Your task to perform on an android device: set the timer Image 0: 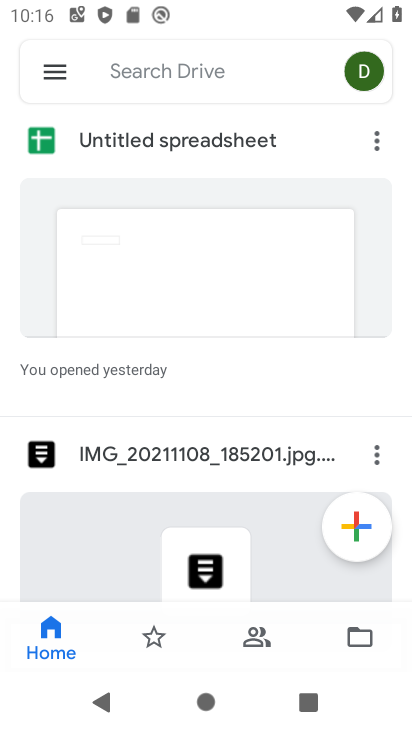
Step 0: press home button
Your task to perform on an android device: set the timer Image 1: 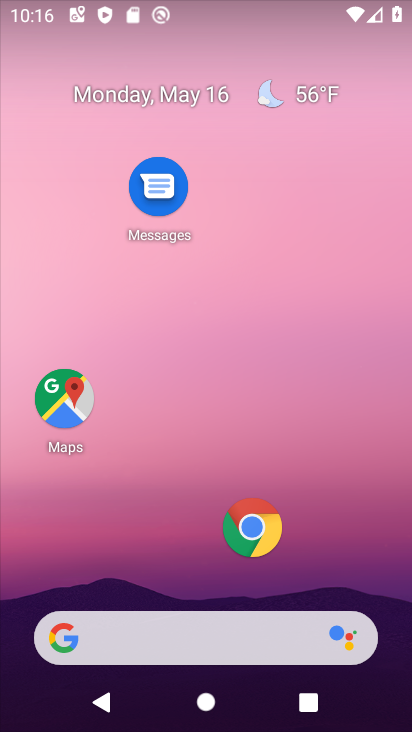
Step 1: drag from (206, 574) to (225, 53)
Your task to perform on an android device: set the timer Image 2: 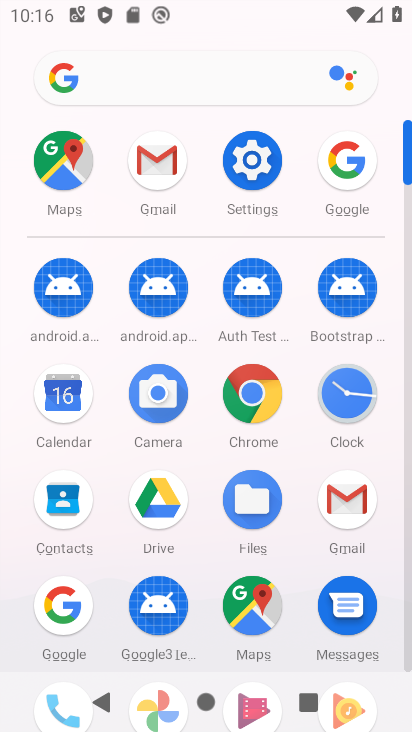
Step 2: click (347, 395)
Your task to perform on an android device: set the timer Image 3: 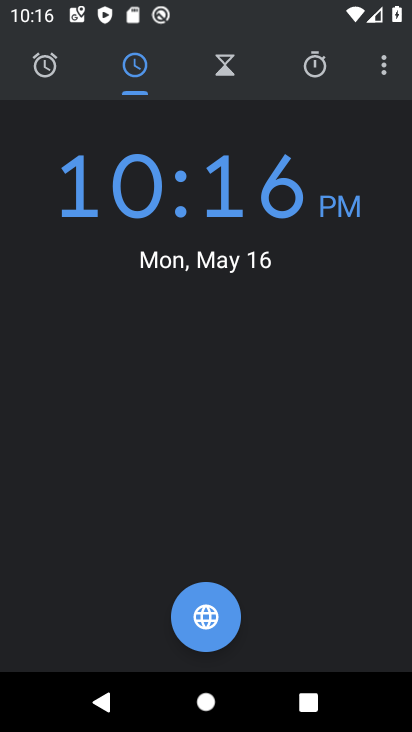
Step 3: click (220, 64)
Your task to perform on an android device: set the timer Image 4: 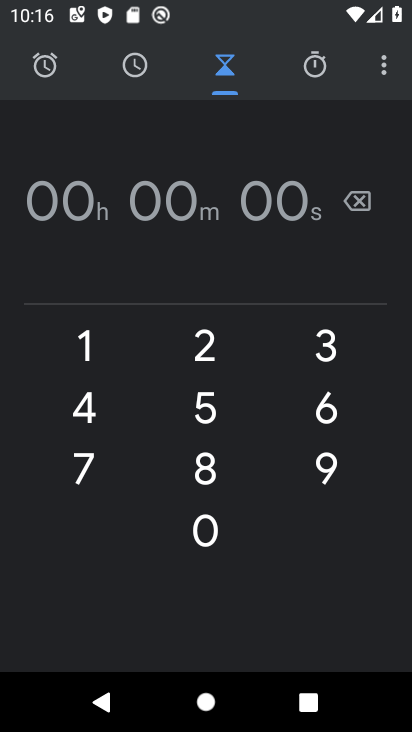
Step 4: click (214, 344)
Your task to perform on an android device: set the timer Image 5: 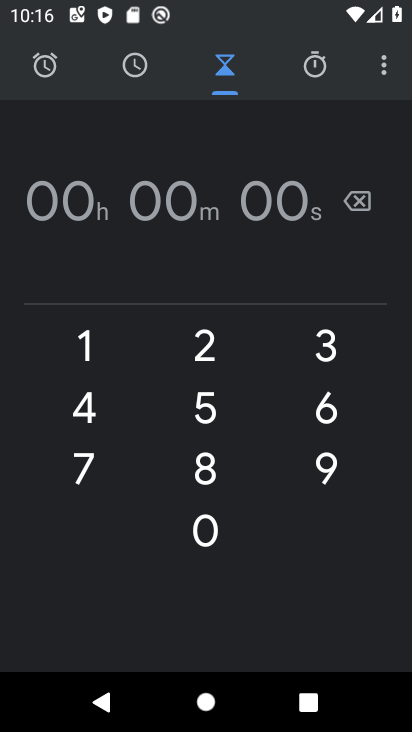
Step 5: click (214, 344)
Your task to perform on an android device: set the timer Image 6: 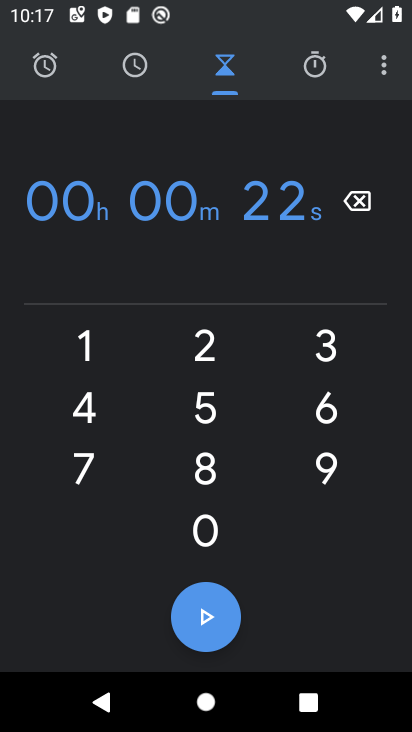
Step 6: task complete